Your task to perform on an android device: turn off data saver in the chrome app Image 0: 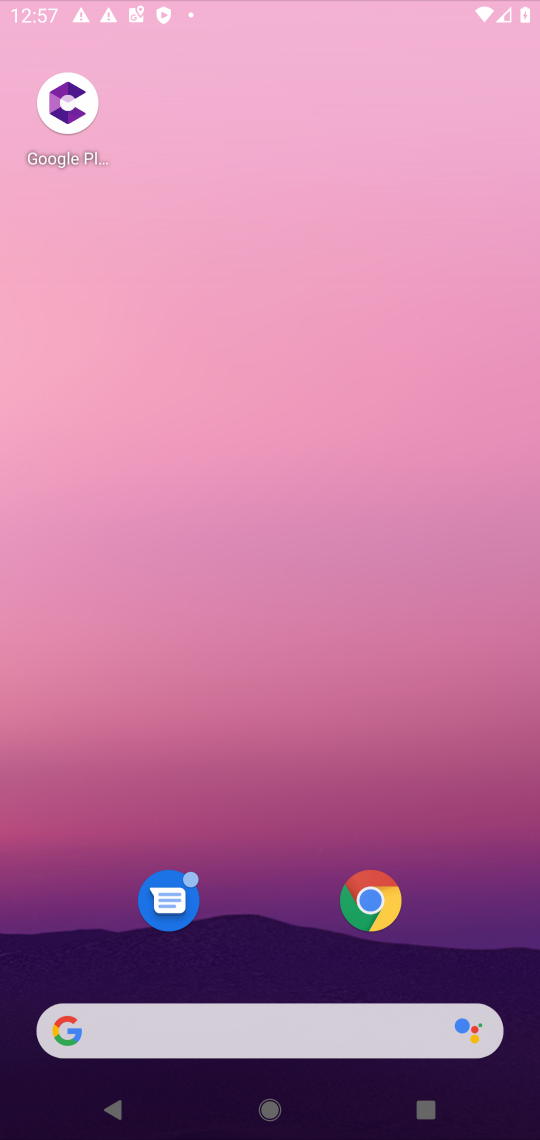
Step 0: press home button
Your task to perform on an android device: turn off data saver in the chrome app Image 1: 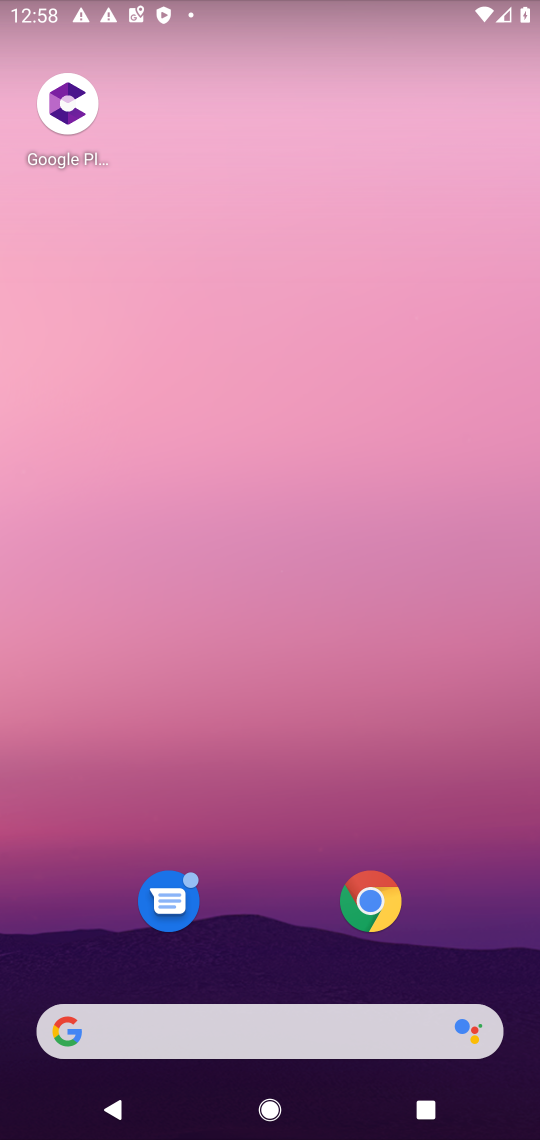
Step 1: click (368, 914)
Your task to perform on an android device: turn off data saver in the chrome app Image 2: 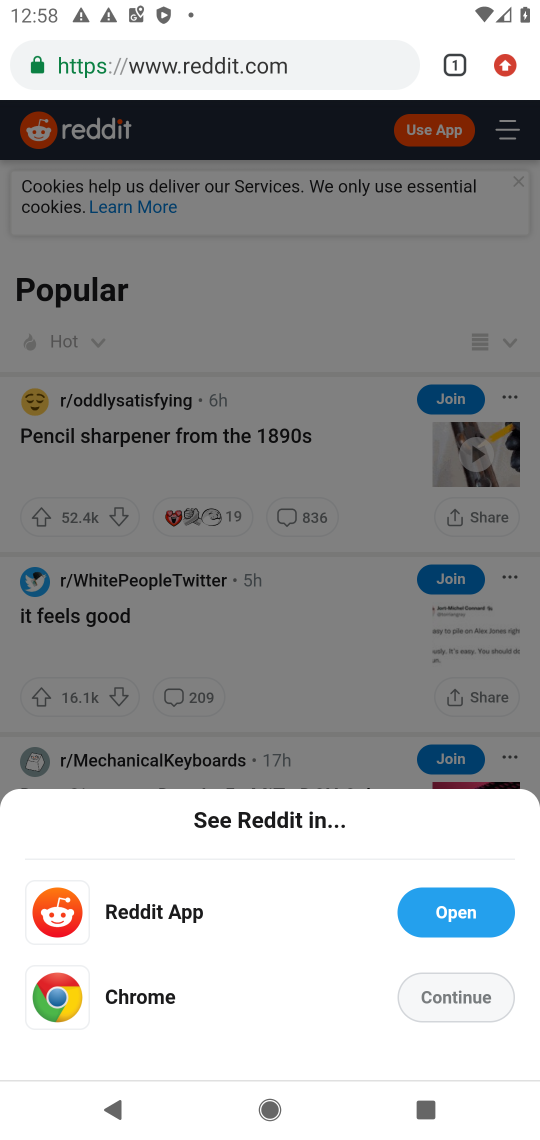
Step 2: click (501, 63)
Your task to perform on an android device: turn off data saver in the chrome app Image 3: 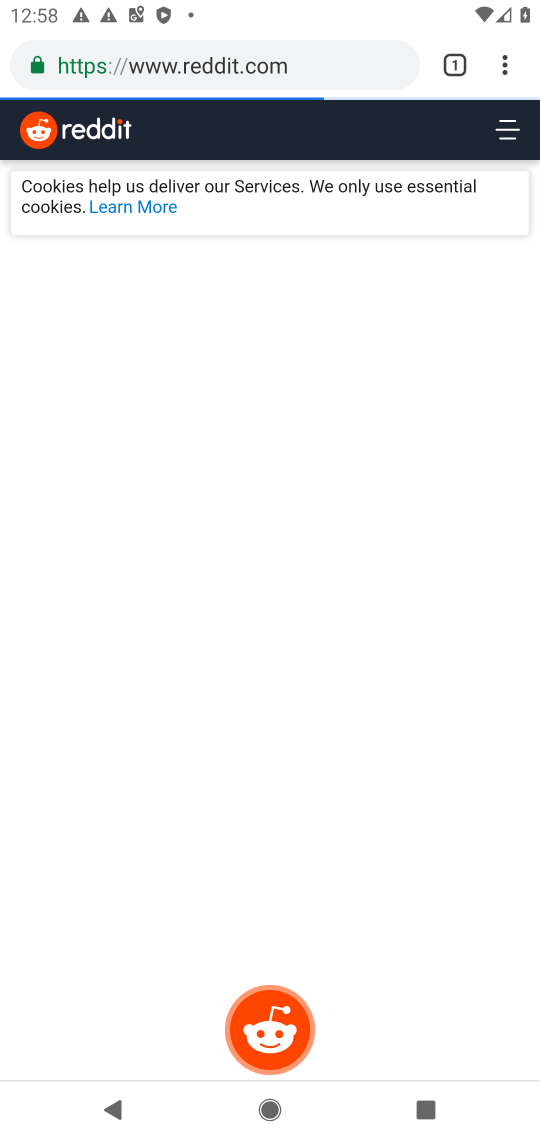
Step 3: click (507, 66)
Your task to perform on an android device: turn off data saver in the chrome app Image 4: 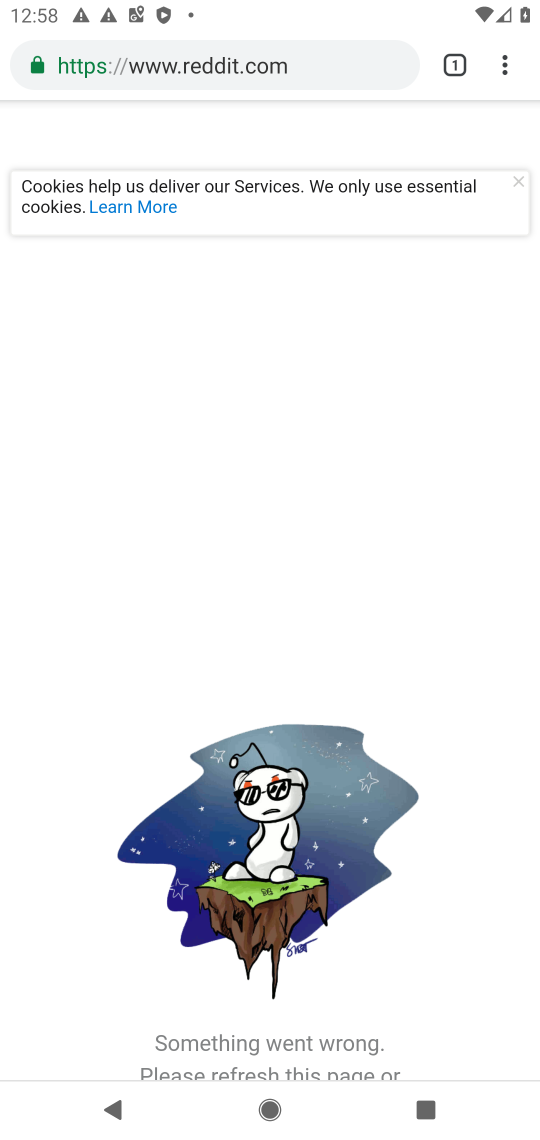
Step 4: click (511, 66)
Your task to perform on an android device: turn off data saver in the chrome app Image 5: 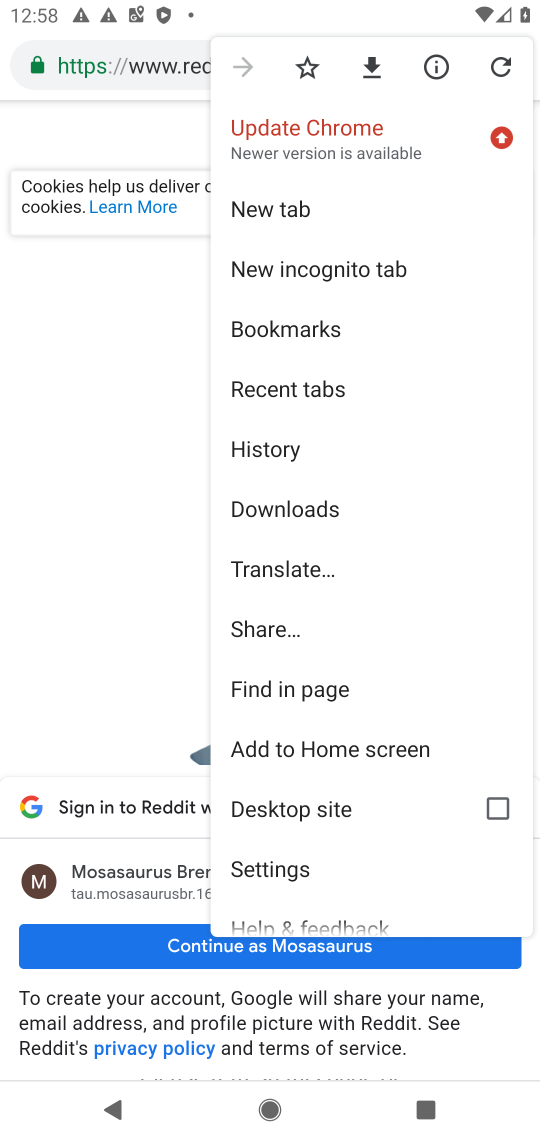
Step 5: click (297, 862)
Your task to perform on an android device: turn off data saver in the chrome app Image 6: 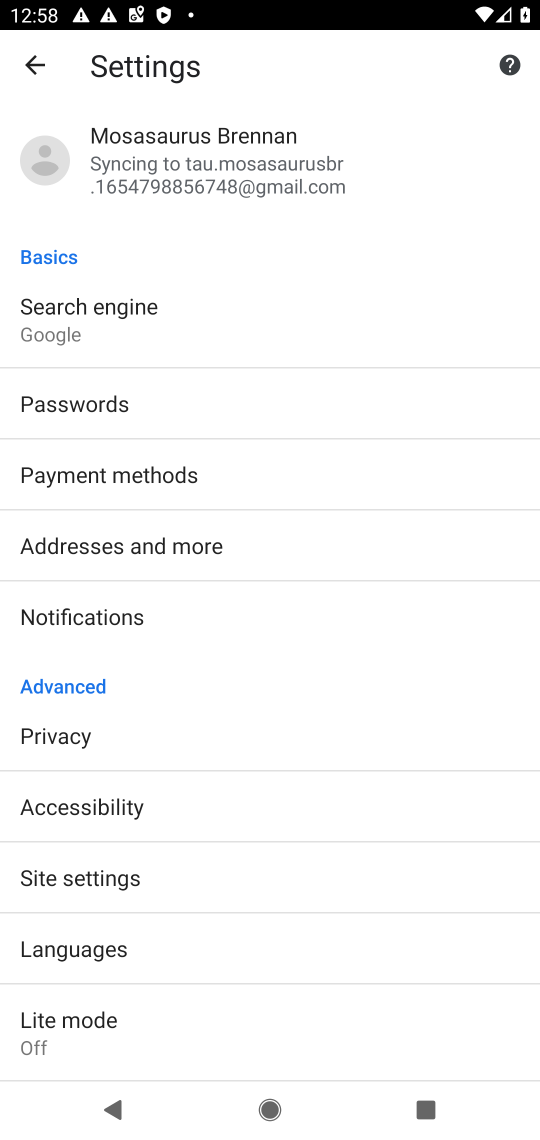
Step 6: click (135, 1022)
Your task to perform on an android device: turn off data saver in the chrome app Image 7: 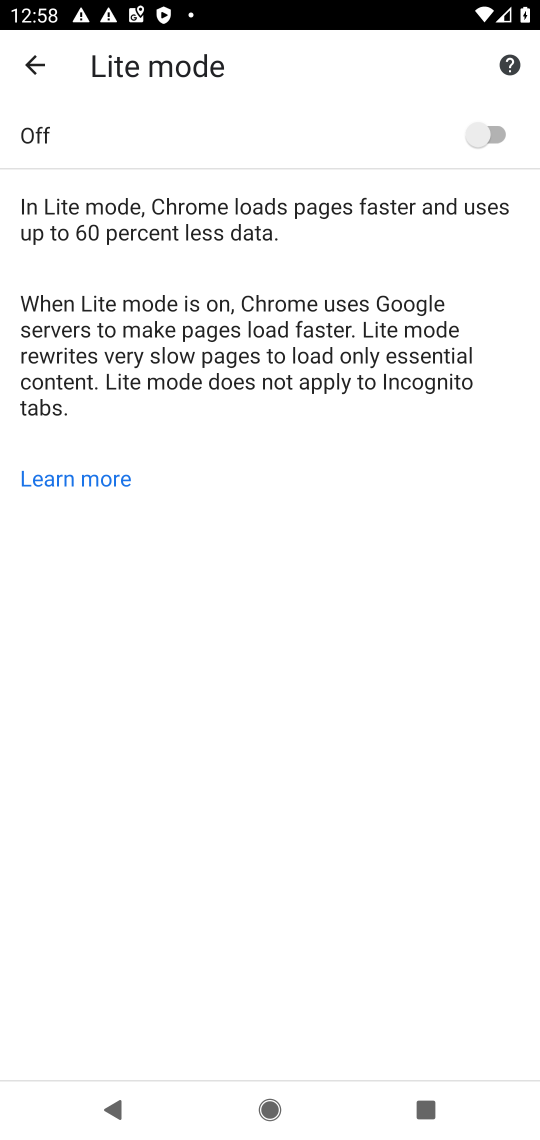
Step 7: task complete